Your task to perform on an android device: turn off smart reply in the gmail app Image 0: 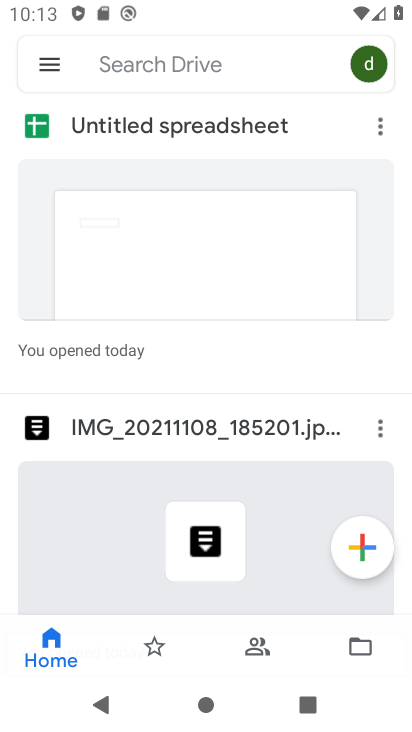
Step 0: press home button
Your task to perform on an android device: turn off smart reply in the gmail app Image 1: 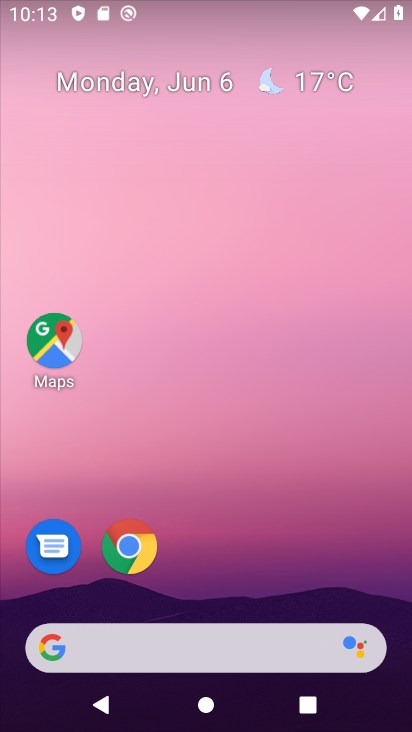
Step 1: drag from (262, 556) to (251, 11)
Your task to perform on an android device: turn off smart reply in the gmail app Image 2: 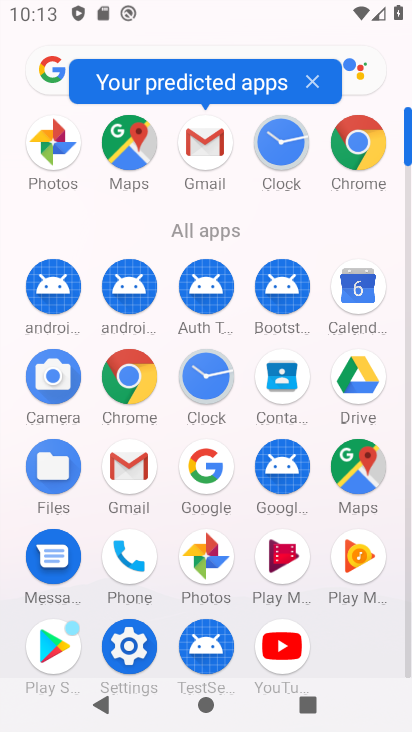
Step 2: click (137, 466)
Your task to perform on an android device: turn off smart reply in the gmail app Image 3: 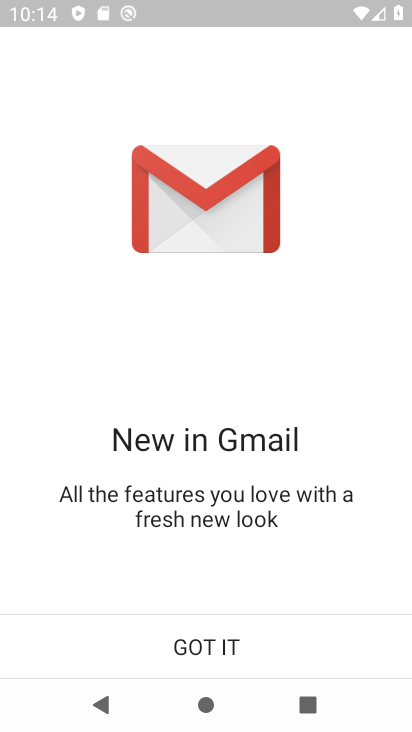
Step 3: click (162, 625)
Your task to perform on an android device: turn off smart reply in the gmail app Image 4: 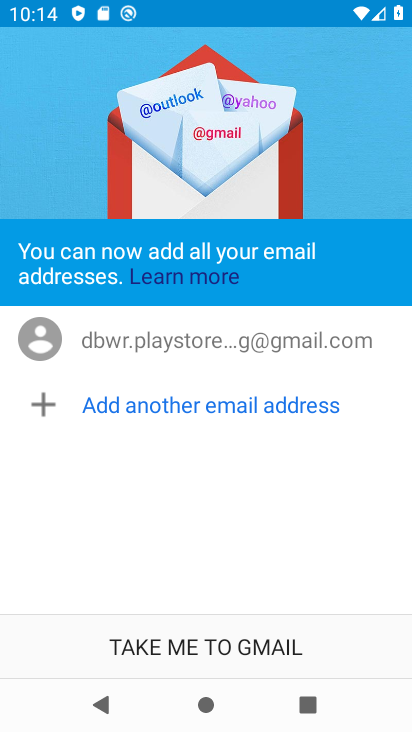
Step 4: click (223, 652)
Your task to perform on an android device: turn off smart reply in the gmail app Image 5: 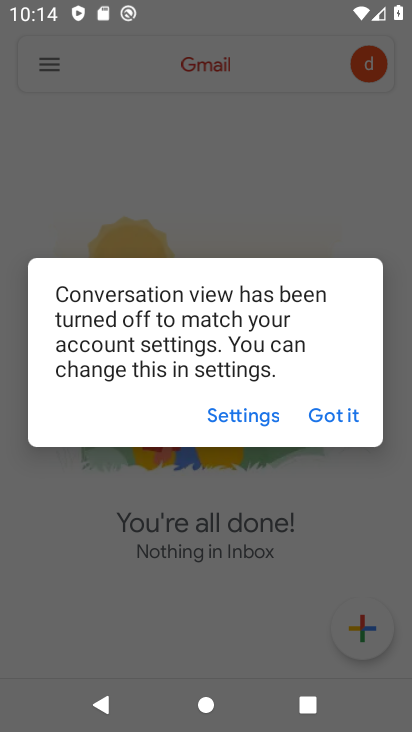
Step 5: click (343, 409)
Your task to perform on an android device: turn off smart reply in the gmail app Image 6: 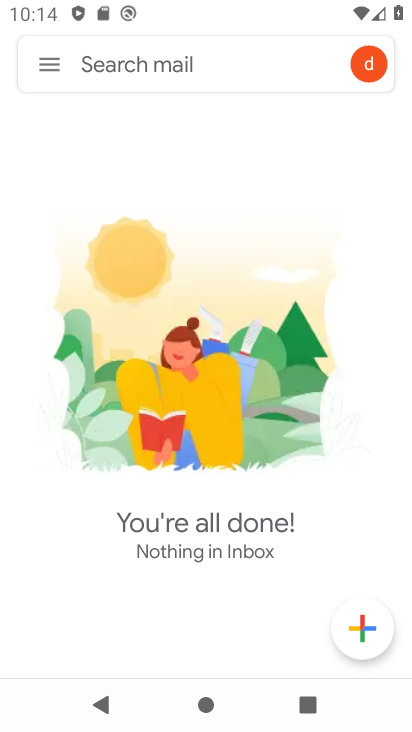
Step 6: click (46, 77)
Your task to perform on an android device: turn off smart reply in the gmail app Image 7: 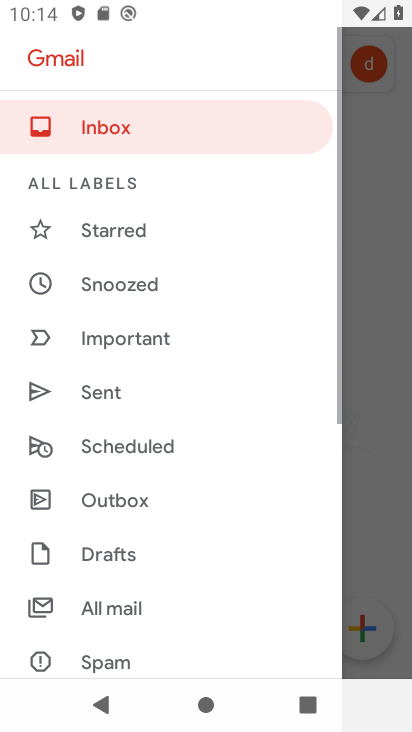
Step 7: drag from (139, 602) to (125, 105)
Your task to perform on an android device: turn off smart reply in the gmail app Image 8: 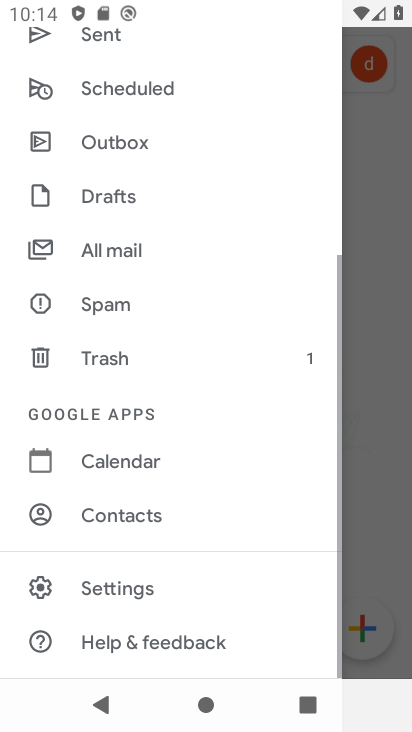
Step 8: click (95, 589)
Your task to perform on an android device: turn off smart reply in the gmail app Image 9: 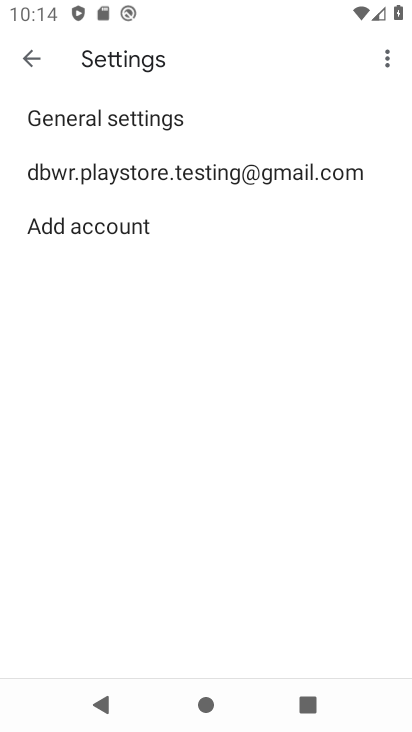
Step 9: click (139, 188)
Your task to perform on an android device: turn off smart reply in the gmail app Image 10: 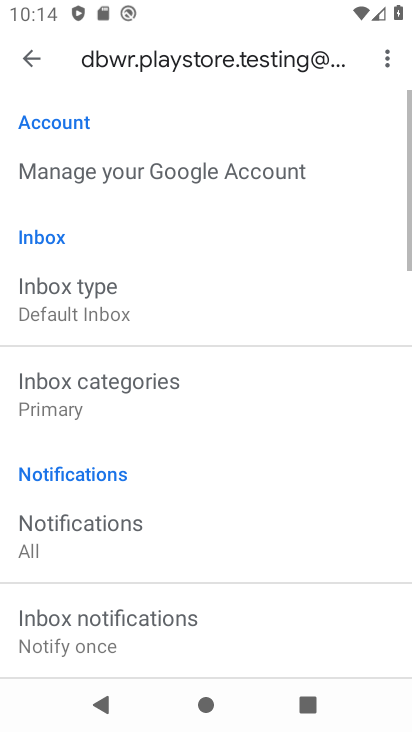
Step 10: drag from (155, 636) to (201, 118)
Your task to perform on an android device: turn off smart reply in the gmail app Image 11: 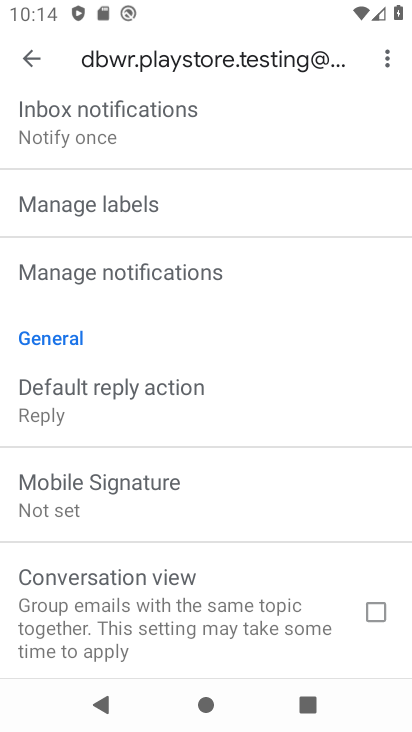
Step 11: drag from (163, 527) to (289, 21)
Your task to perform on an android device: turn off smart reply in the gmail app Image 12: 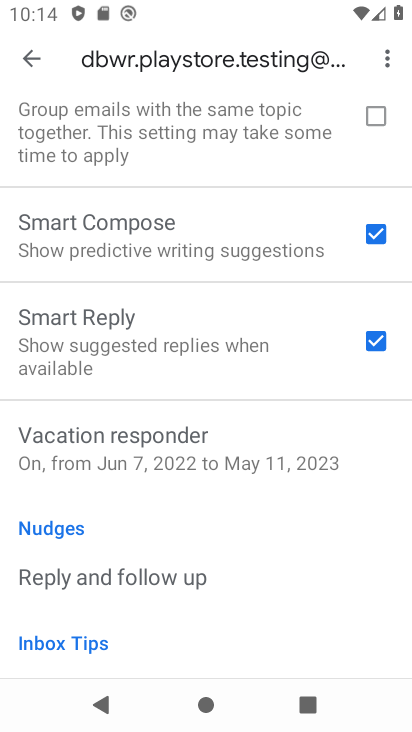
Step 12: click (356, 340)
Your task to perform on an android device: turn off smart reply in the gmail app Image 13: 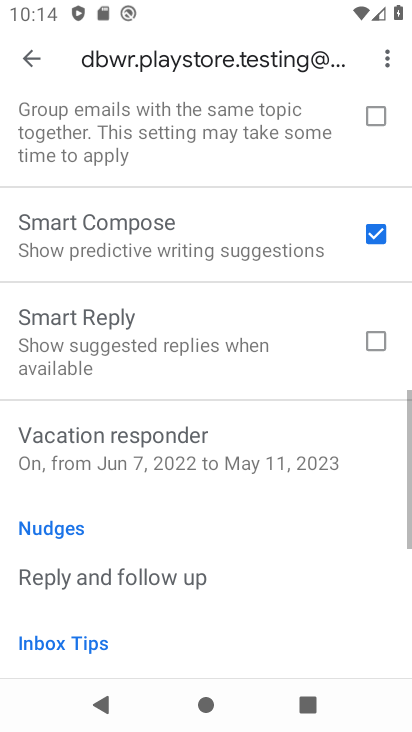
Step 13: task complete